Your task to perform on an android device: turn on bluetooth scan Image 0: 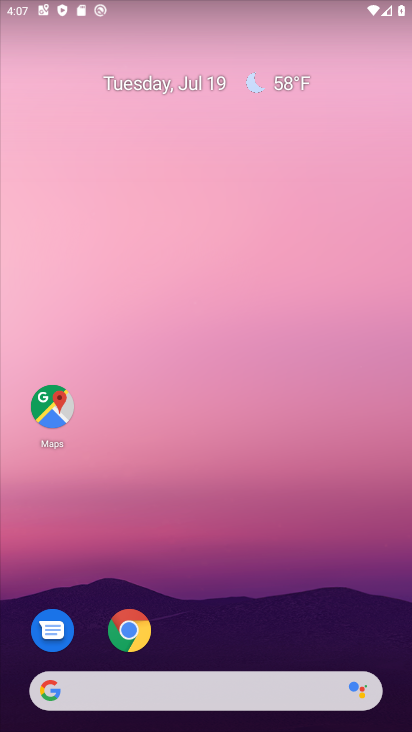
Step 0: drag from (194, 664) to (271, 237)
Your task to perform on an android device: turn on bluetooth scan Image 1: 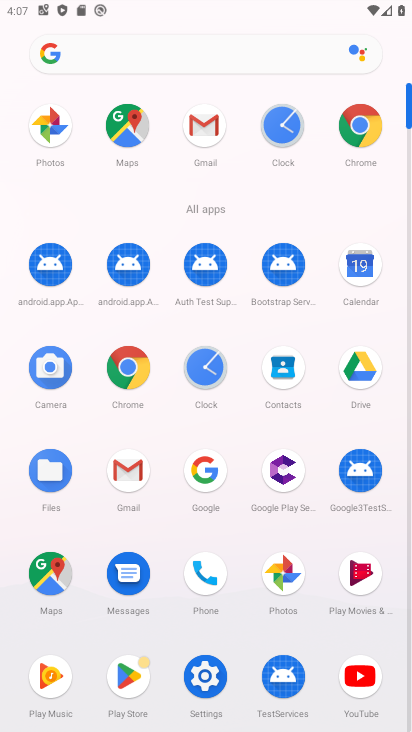
Step 1: click (196, 671)
Your task to perform on an android device: turn on bluetooth scan Image 2: 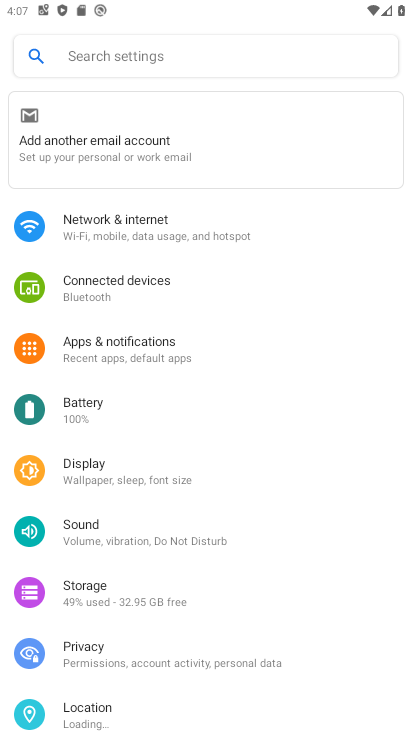
Step 2: click (132, 293)
Your task to perform on an android device: turn on bluetooth scan Image 3: 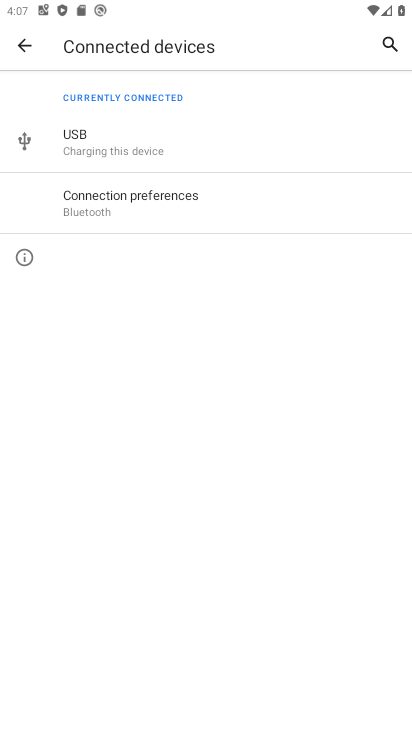
Step 3: click (144, 200)
Your task to perform on an android device: turn on bluetooth scan Image 4: 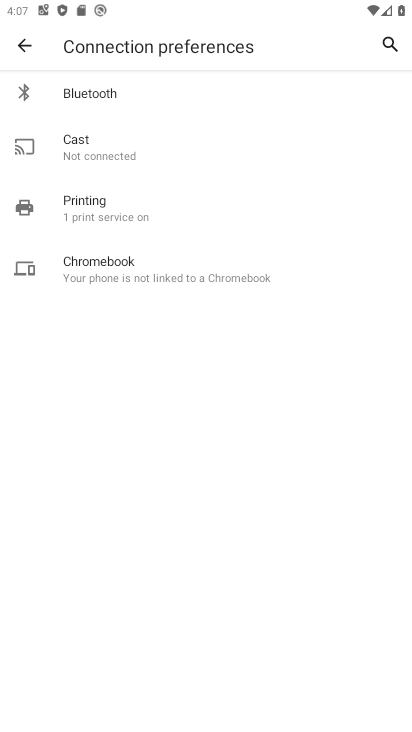
Step 4: click (192, 103)
Your task to perform on an android device: turn on bluetooth scan Image 5: 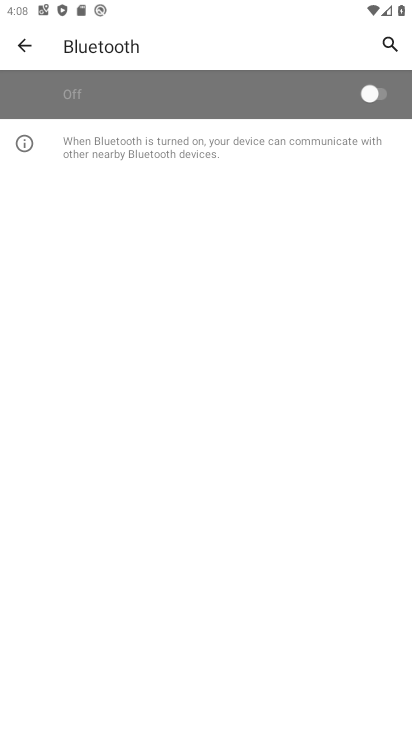
Step 5: click (369, 91)
Your task to perform on an android device: turn on bluetooth scan Image 6: 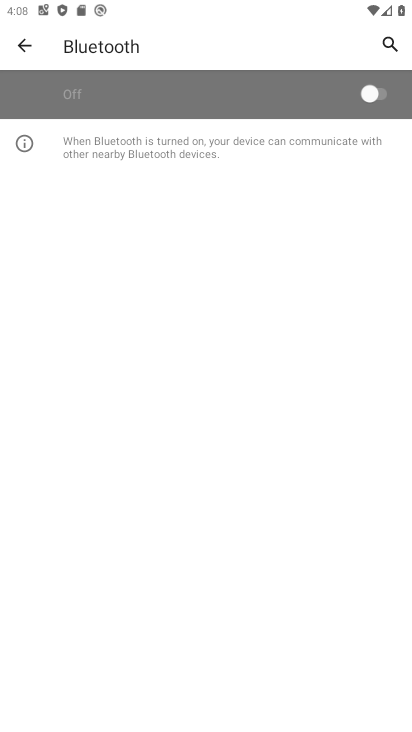
Step 6: task complete